Your task to perform on an android device: allow cookies in the chrome app Image 0: 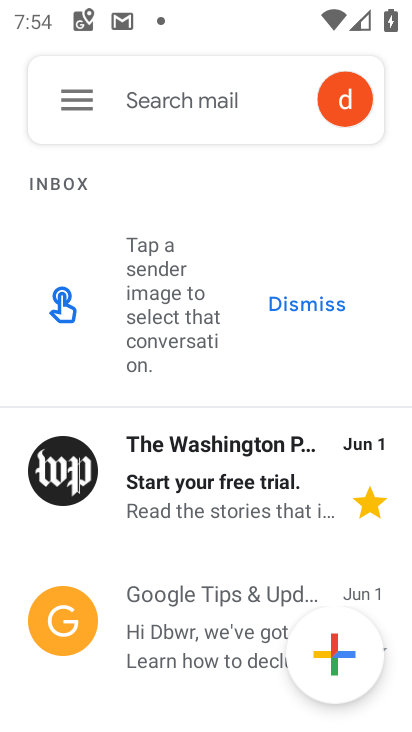
Step 0: press home button
Your task to perform on an android device: allow cookies in the chrome app Image 1: 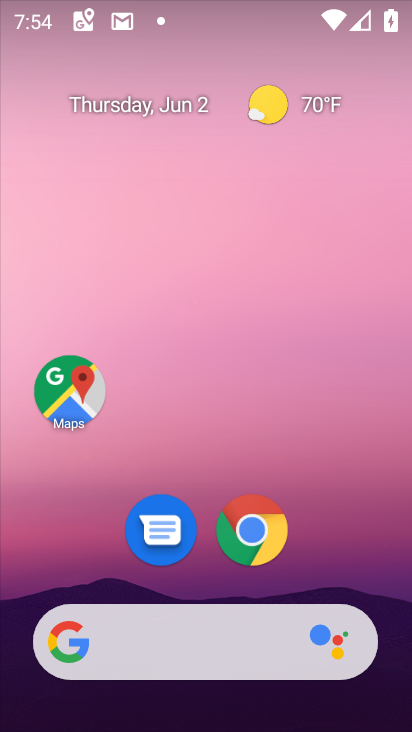
Step 1: click (266, 520)
Your task to perform on an android device: allow cookies in the chrome app Image 2: 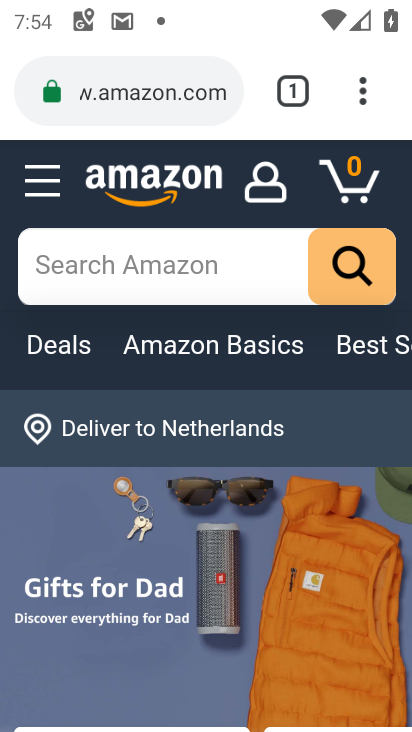
Step 2: click (368, 85)
Your task to perform on an android device: allow cookies in the chrome app Image 3: 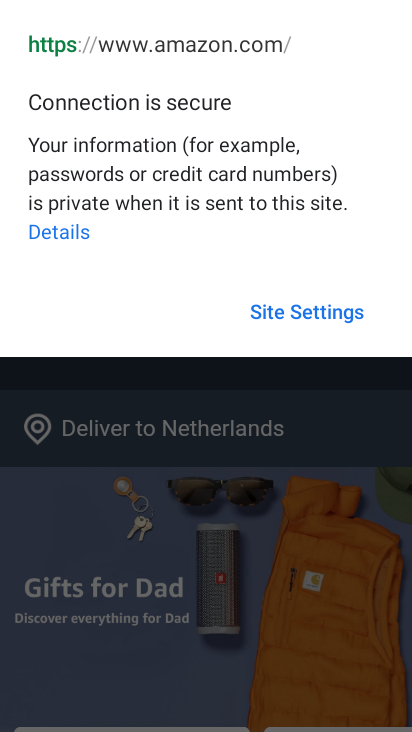
Step 3: click (352, 576)
Your task to perform on an android device: allow cookies in the chrome app Image 4: 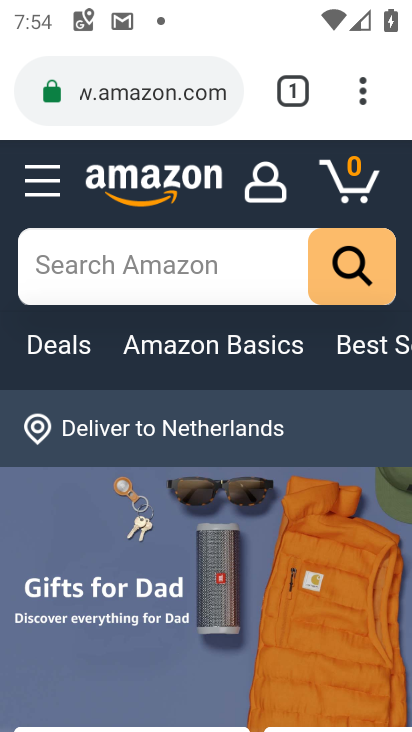
Step 4: click (359, 93)
Your task to perform on an android device: allow cookies in the chrome app Image 5: 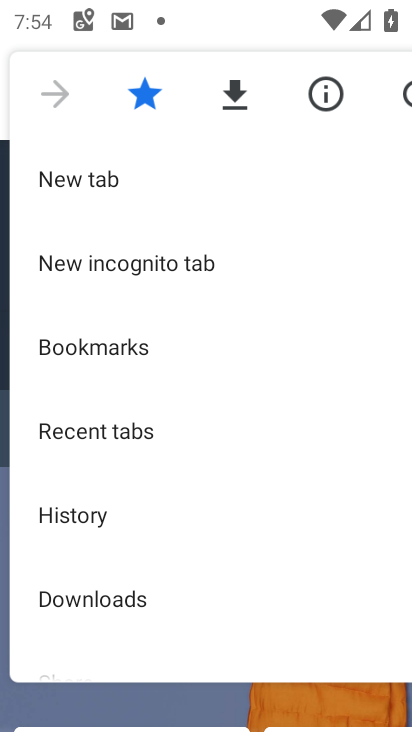
Step 5: drag from (157, 640) to (157, 306)
Your task to perform on an android device: allow cookies in the chrome app Image 6: 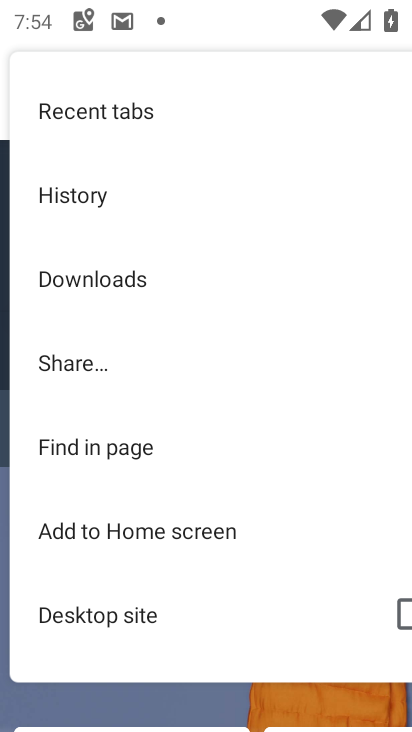
Step 6: drag from (96, 616) to (130, 344)
Your task to perform on an android device: allow cookies in the chrome app Image 7: 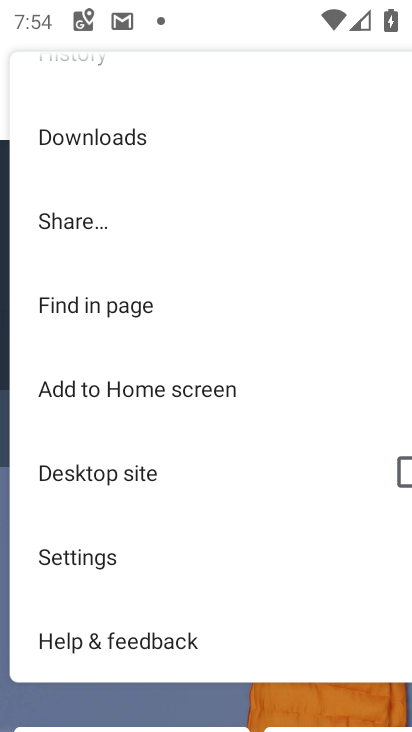
Step 7: click (110, 559)
Your task to perform on an android device: allow cookies in the chrome app Image 8: 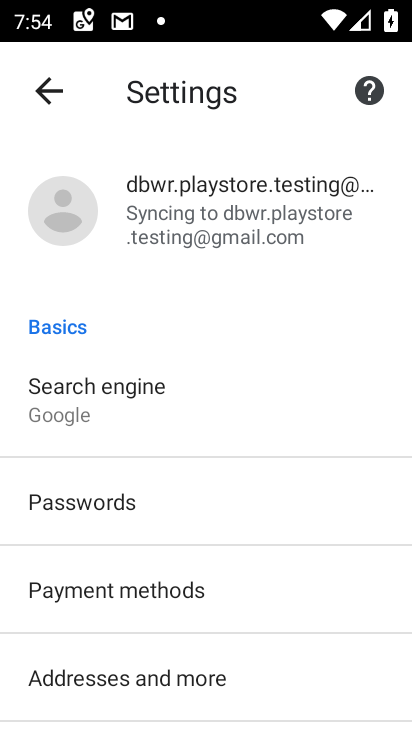
Step 8: drag from (156, 650) to (252, 205)
Your task to perform on an android device: allow cookies in the chrome app Image 9: 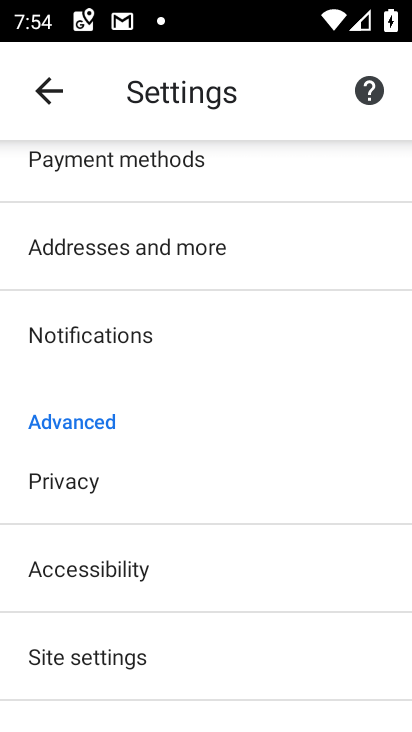
Step 9: drag from (179, 655) to (221, 320)
Your task to perform on an android device: allow cookies in the chrome app Image 10: 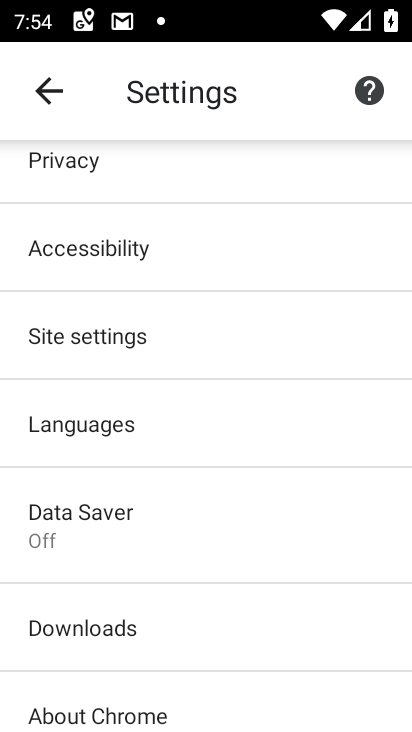
Step 10: drag from (100, 622) to (147, 298)
Your task to perform on an android device: allow cookies in the chrome app Image 11: 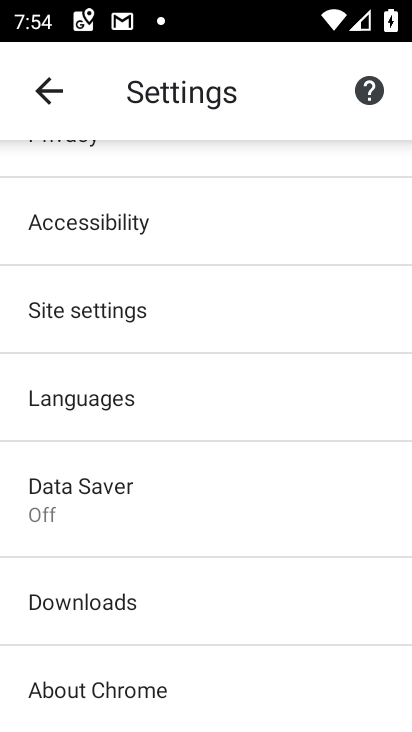
Step 11: click (89, 308)
Your task to perform on an android device: allow cookies in the chrome app Image 12: 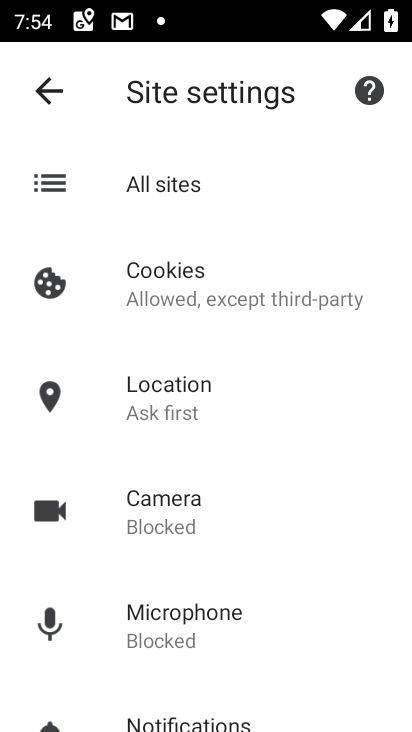
Step 12: click (186, 292)
Your task to perform on an android device: allow cookies in the chrome app Image 13: 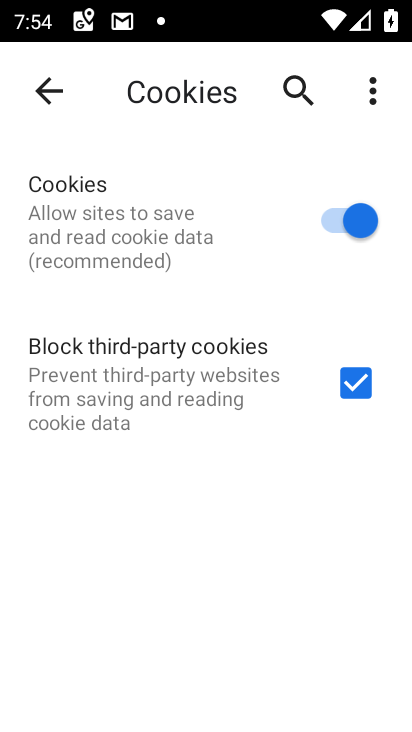
Step 13: task complete